Your task to perform on an android device: move a message to another label in the gmail app Image 0: 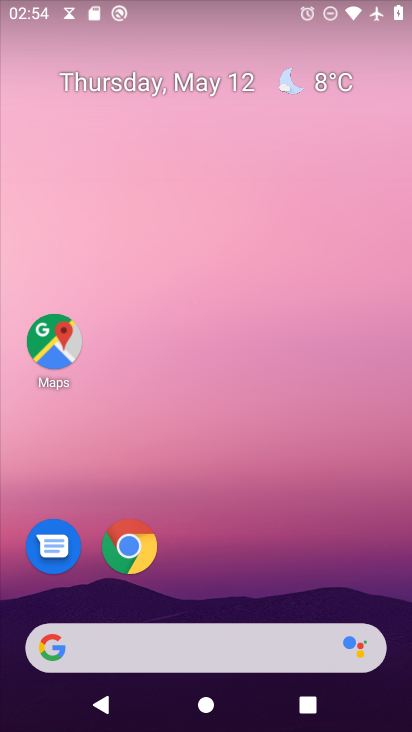
Step 0: press home button
Your task to perform on an android device: move a message to another label in the gmail app Image 1: 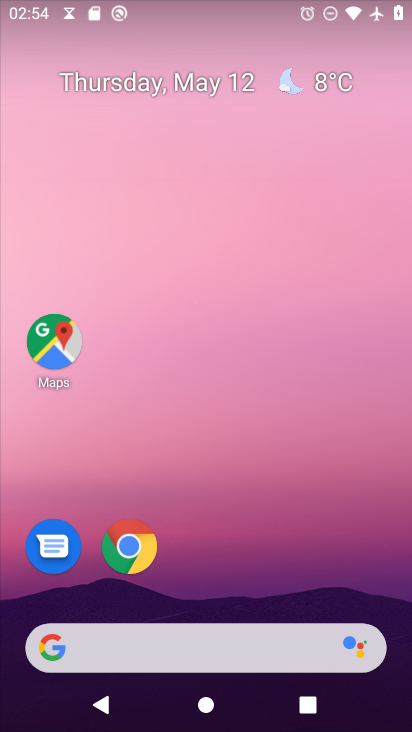
Step 1: drag from (171, 652) to (307, 123)
Your task to perform on an android device: move a message to another label in the gmail app Image 2: 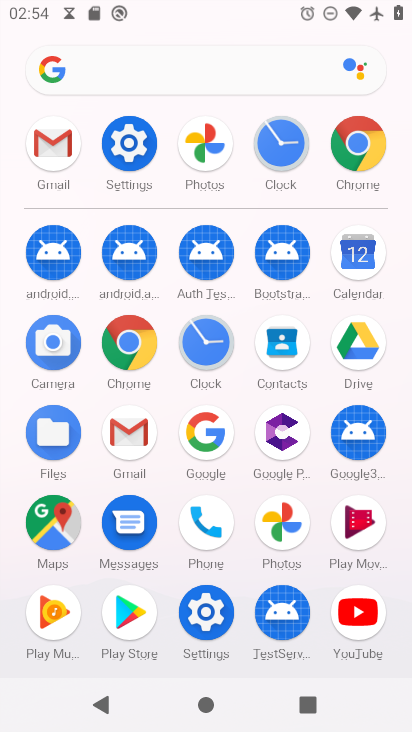
Step 2: click (138, 438)
Your task to perform on an android device: move a message to another label in the gmail app Image 3: 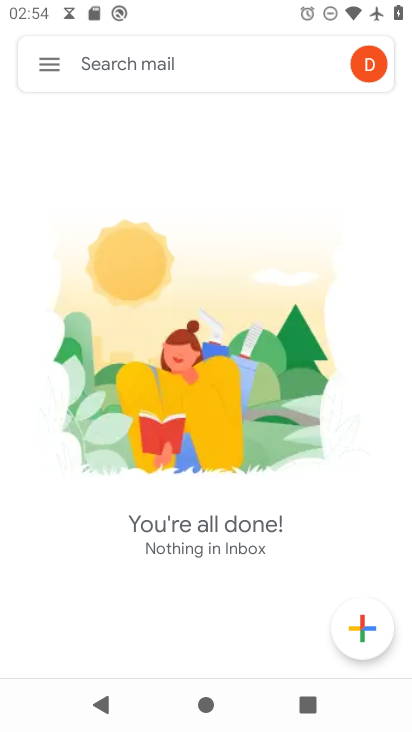
Step 3: task complete